Your task to perform on an android device: Go to wifi settings Image 0: 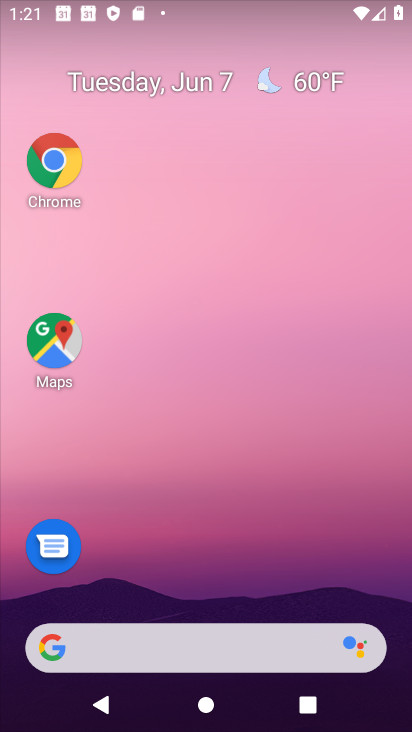
Step 0: drag from (142, 546) to (77, 21)
Your task to perform on an android device: Go to wifi settings Image 1: 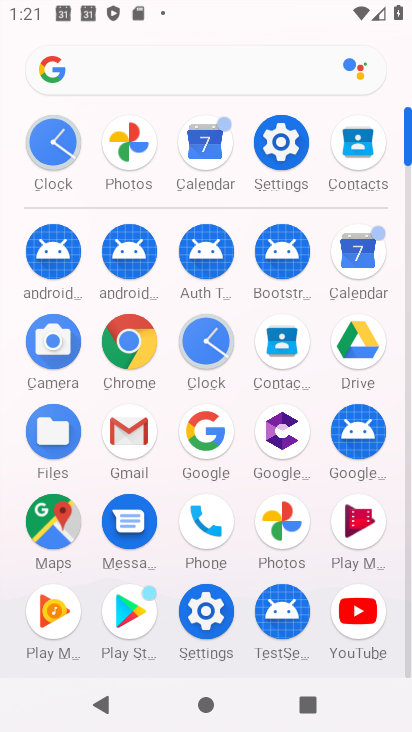
Step 1: click (278, 157)
Your task to perform on an android device: Go to wifi settings Image 2: 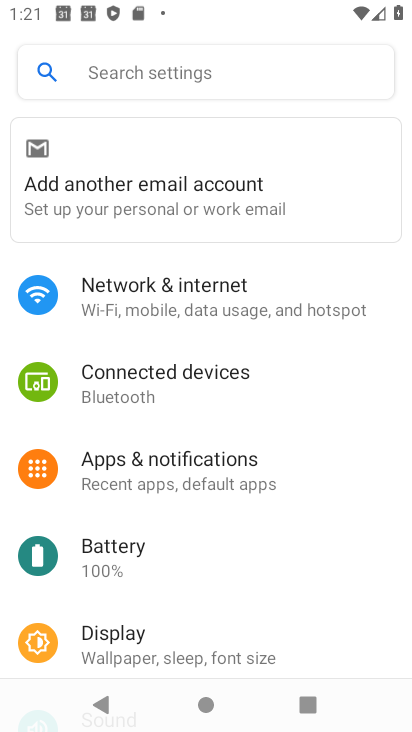
Step 2: click (128, 288)
Your task to perform on an android device: Go to wifi settings Image 3: 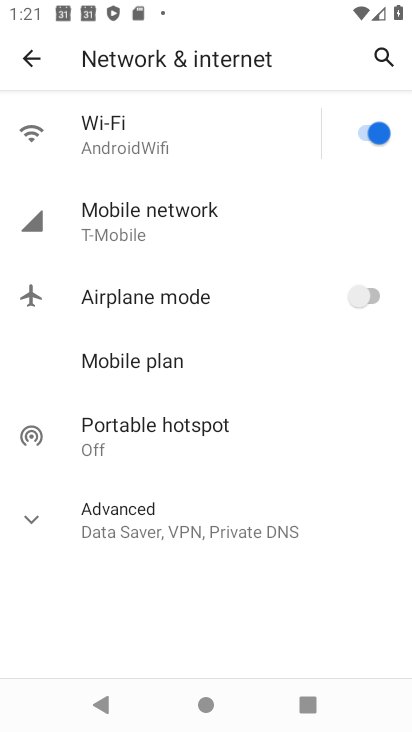
Step 3: click (178, 159)
Your task to perform on an android device: Go to wifi settings Image 4: 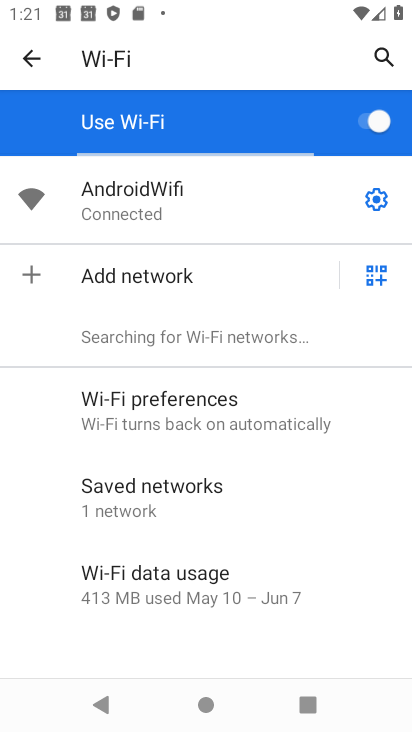
Step 4: click (370, 205)
Your task to perform on an android device: Go to wifi settings Image 5: 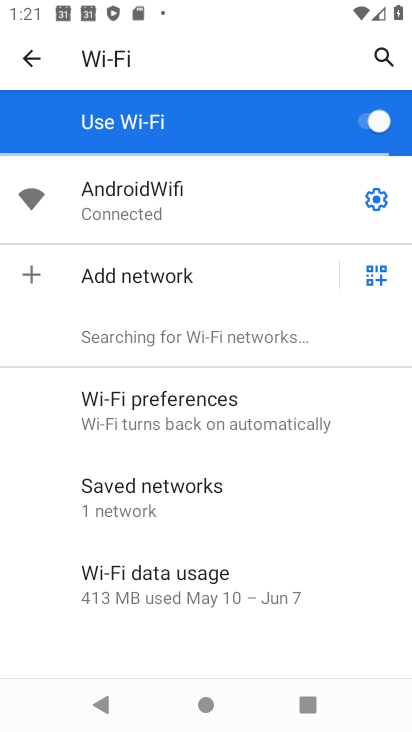
Step 5: task complete